Your task to perform on an android device: Open Google Image 0: 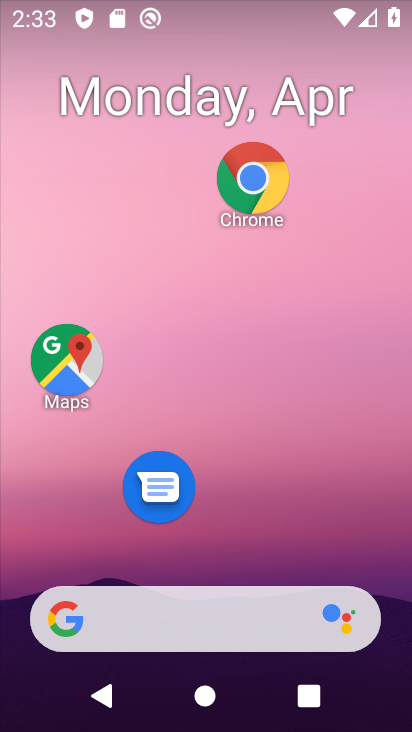
Step 0: click (247, 198)
Your task to perform on an android device: Open Google Image 1: 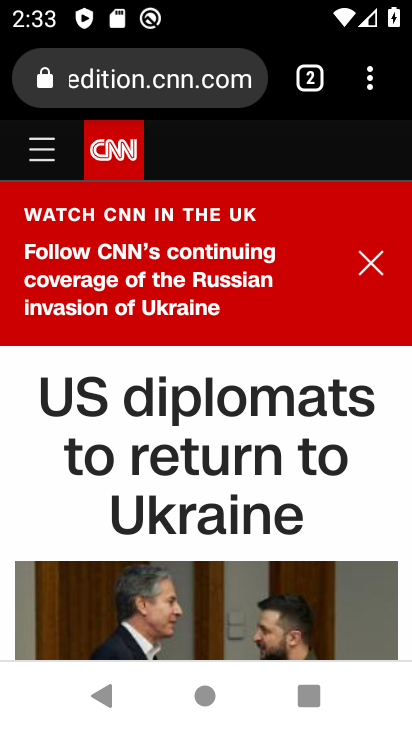
Step 1: click (372, 72)
Your task to perform on an android device: Open Google Image 2: 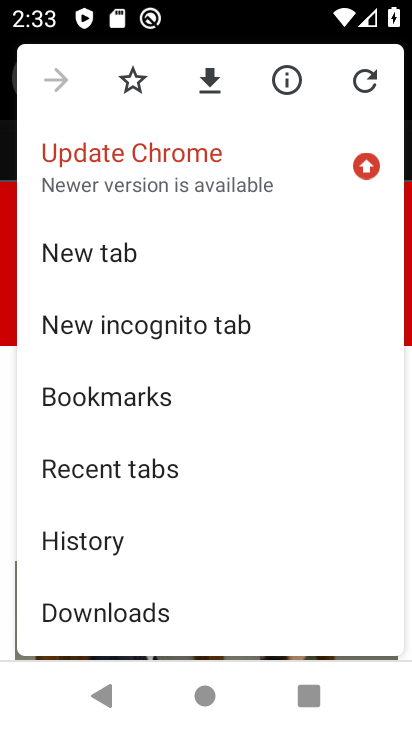
Step 2: click (111, 244)
Your task to perform on an android device: Open Google Image 3: 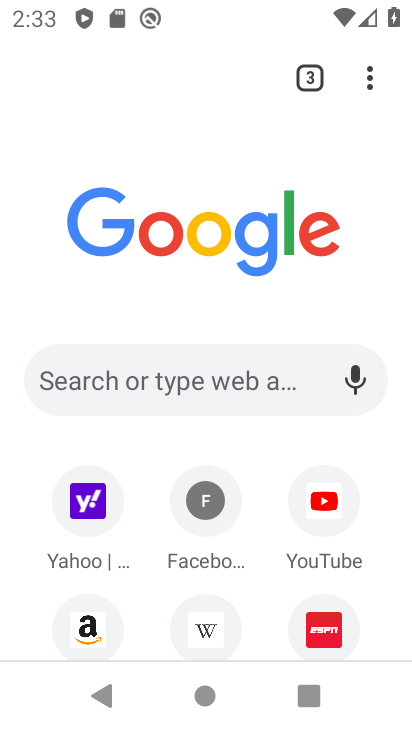
Step 3: click (125, 377)
Your task to perform on an android device: Open Google Image 4: 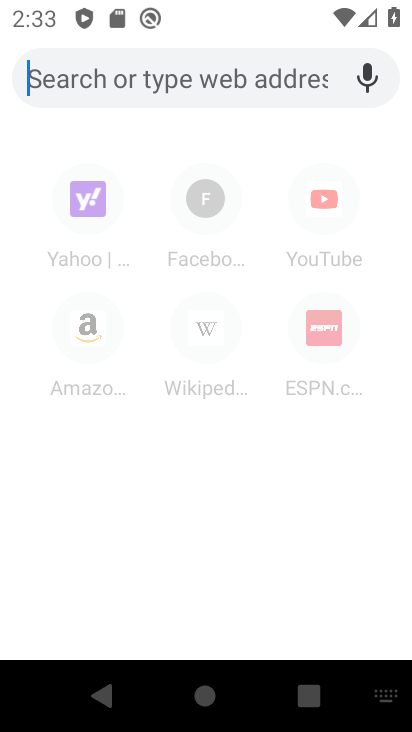
Step 4: type "google.com"
Your task to perform on an android device: Open Google Image 5: 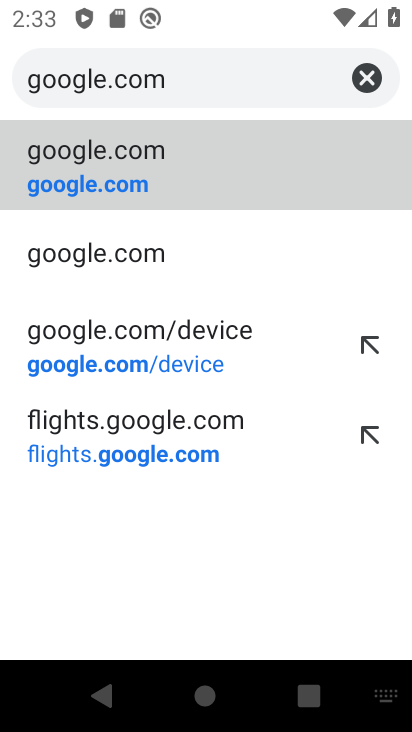
Step 5: click (84, 170)
Your task to perform on an android device: Open Google Image 6: 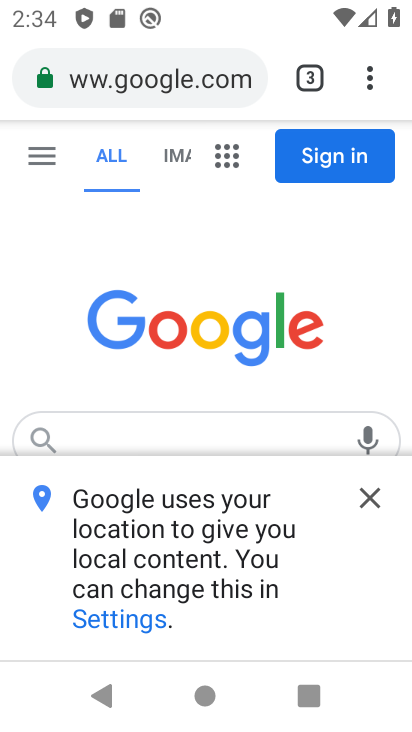
Step 6: click (369, 501)
Your task to perform on an android device: Open Google Image 7: 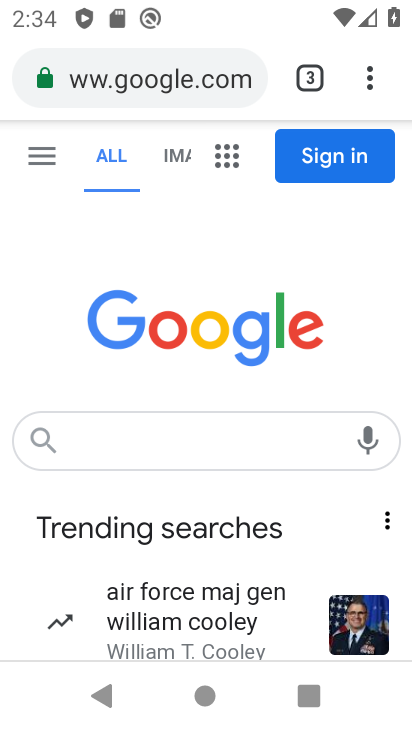
Step 7: task complete